Your task to perform on an android device: Go to Reddit.com Image 0: 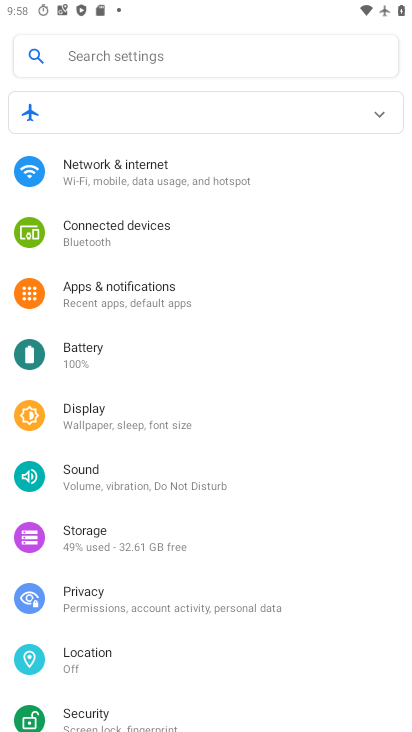
Step 0: press home button
Your task to perform on an android device: Go to Reddit.com Image 1: 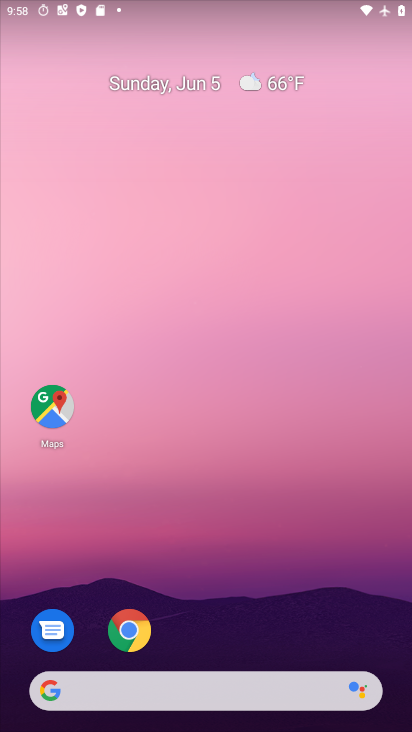
Step 1: click (127, 638)
Your task to perform on an android device: Go to Reddit.com Image 2: 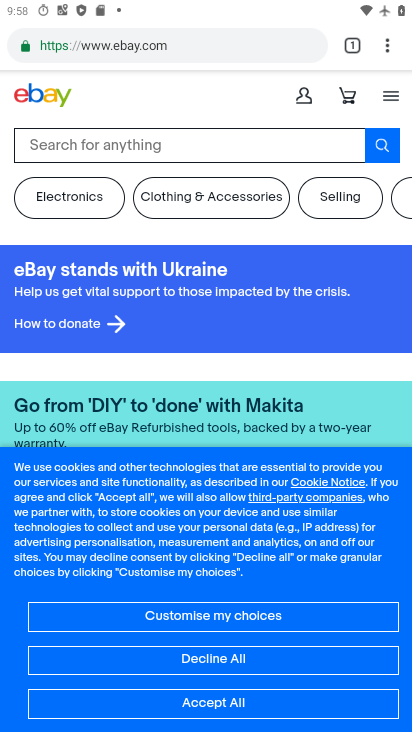
Step 2: click (390, 49)
Your task to perform on an android device: Go to Reddit.com Image 3: 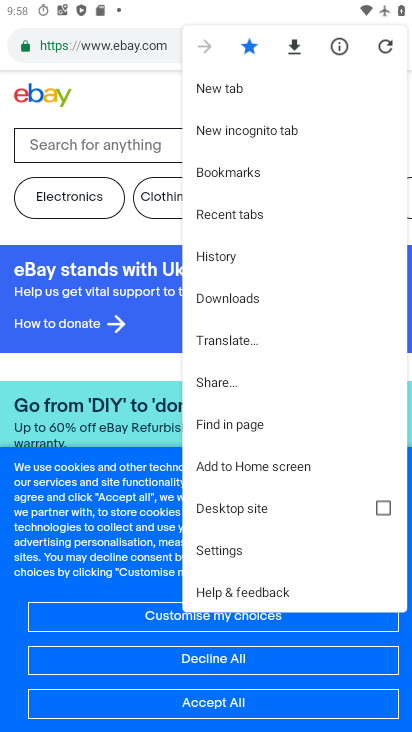
Step 3: click (231, 88)
Your task to perform on an android device: Go to Reddit.com Image 4: 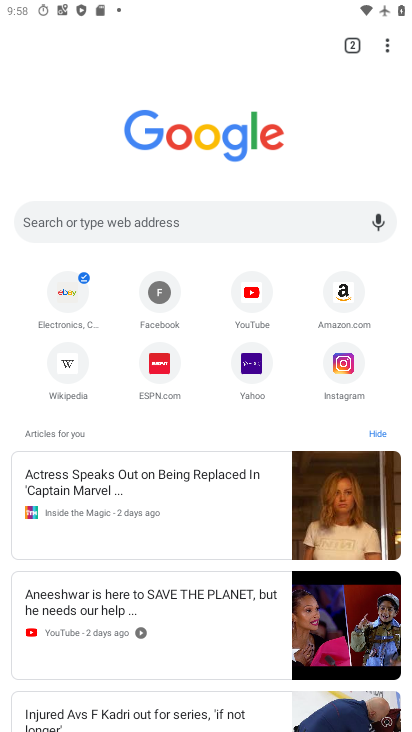
Step 4: click (214, 223)
Your task to perform on an android device: Go to Reddit.com Image 5: 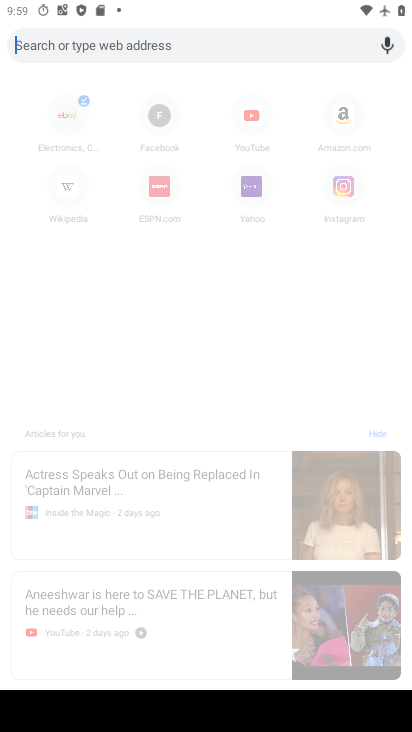
Step 5: type "Reddit.com"
Your task to perform on an android device: Go to Reddit.com Image 6: 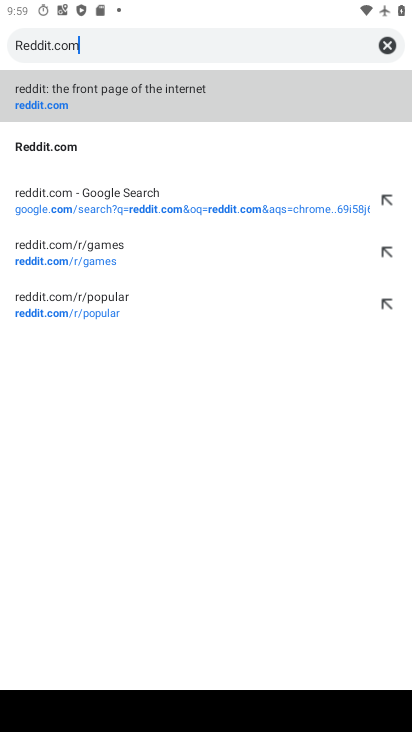
Step 6: click (58, 97)
Your task to perform on an android device: Go to Reddit.com Image 7: 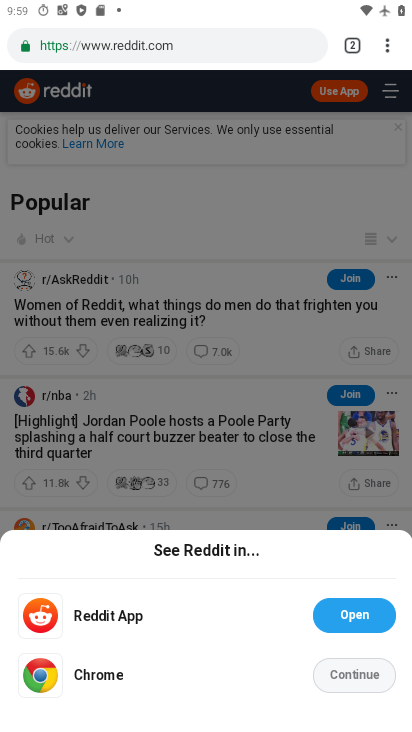
Step 7: task complete